Your task to perform on an android device: toggle show notifications on the lock screen Image 0: 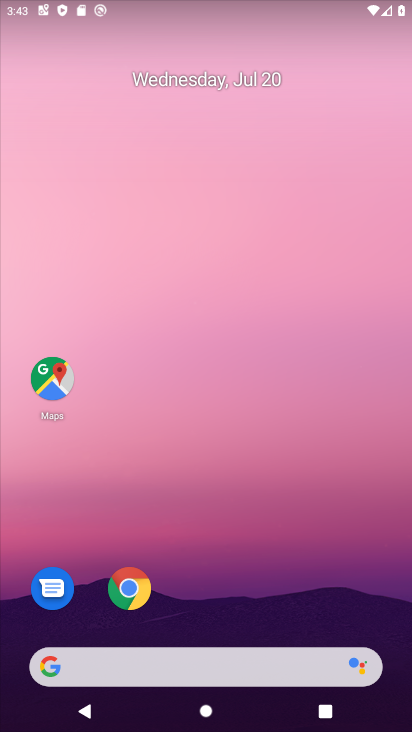
Step 0: drag from (327, 530) to (271, 0)
Your task to perform on an android device: toggle show notifications on the lock screen Image 1: 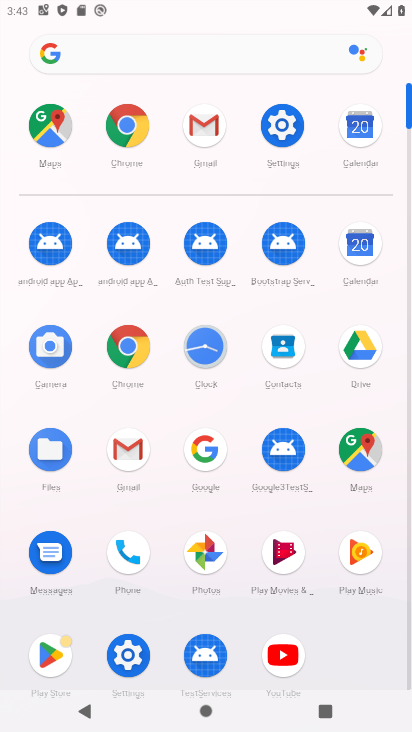
Step 1: click (273, 106)
Your task to perform on an android device: toggle show notifications on the lock screen Image 2: 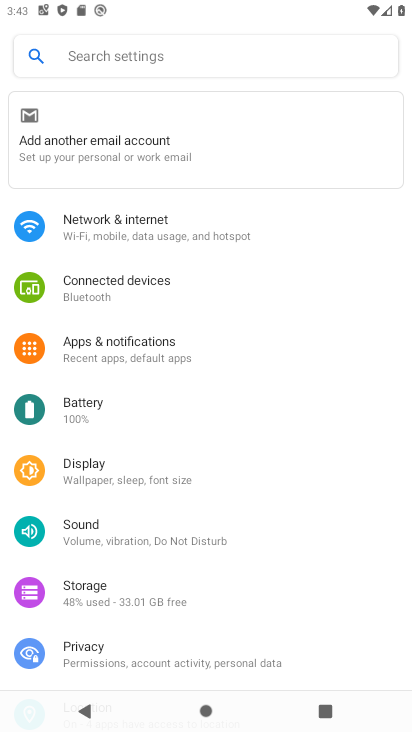
Step 2: click (136, 352)
Your task to perform on an android device: toggle show notifications on the lock screen Image 3: 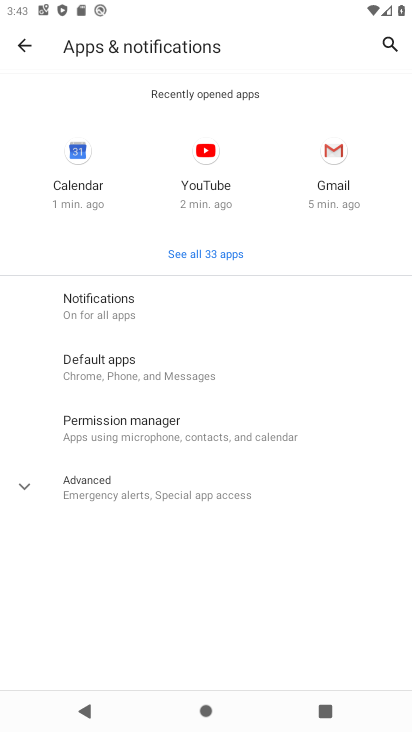
Step 3: click (127, 317)
Your task to perform on an android device: toggle show notifications on the lock screen Image 4: 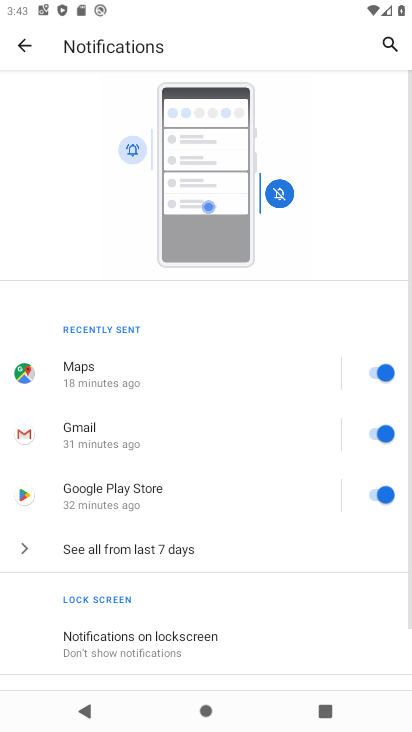
Step 4: drag from (253, 420) to (367, 237)
Your task to perform on an android device: toggle show notifications on the lock screen Image 5: 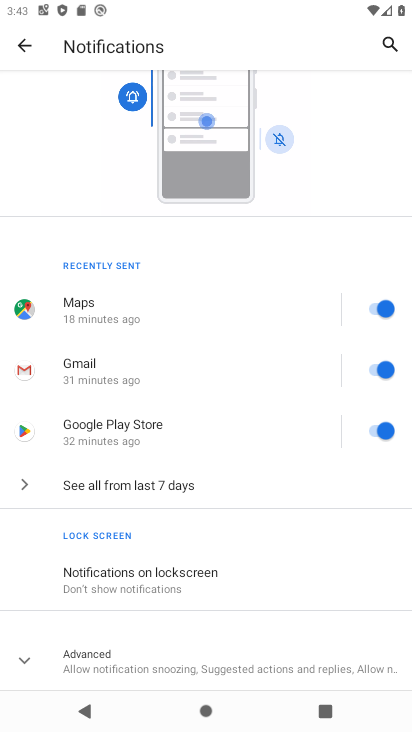
Step 5: click (150, 668)
Your task to perform on an android device: toggle show notifications on the lock screen Image 6: 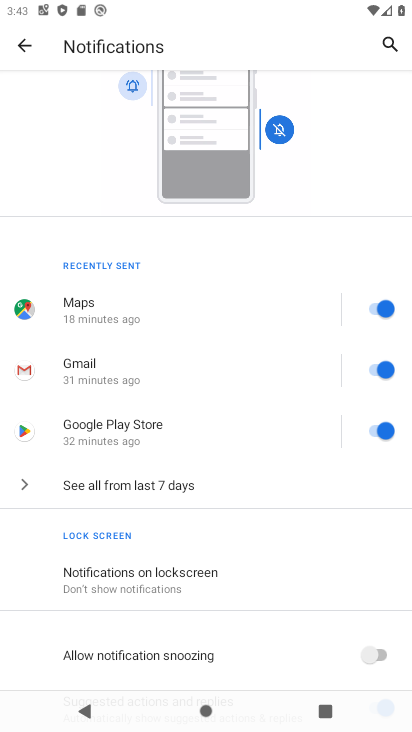
Step 6: drag from (230, 654) to (279, 213)
Your task to perform on an android device: toggle show notifications on the lock screen Image 7: 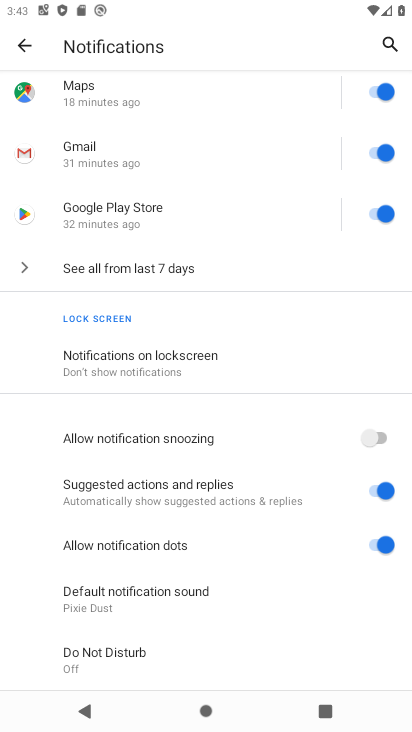
Step 7: click (146, 349)
Your task to perform on an android device: toggle show notifications on the lock screen Image 8: 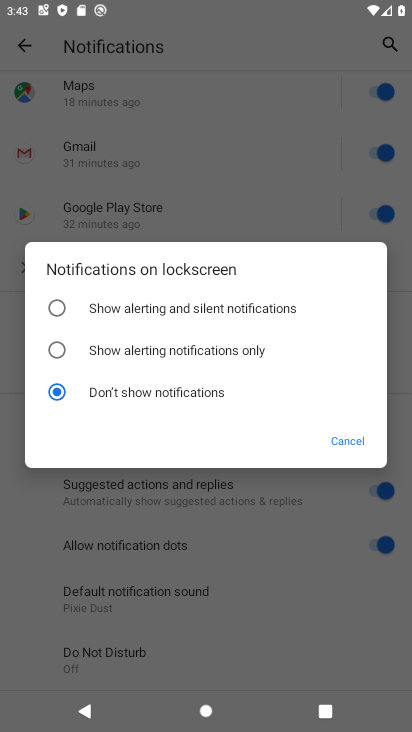
Step 8: task complete